Your task to perform on an android device: turn off data saver in the chrome app Image 0: 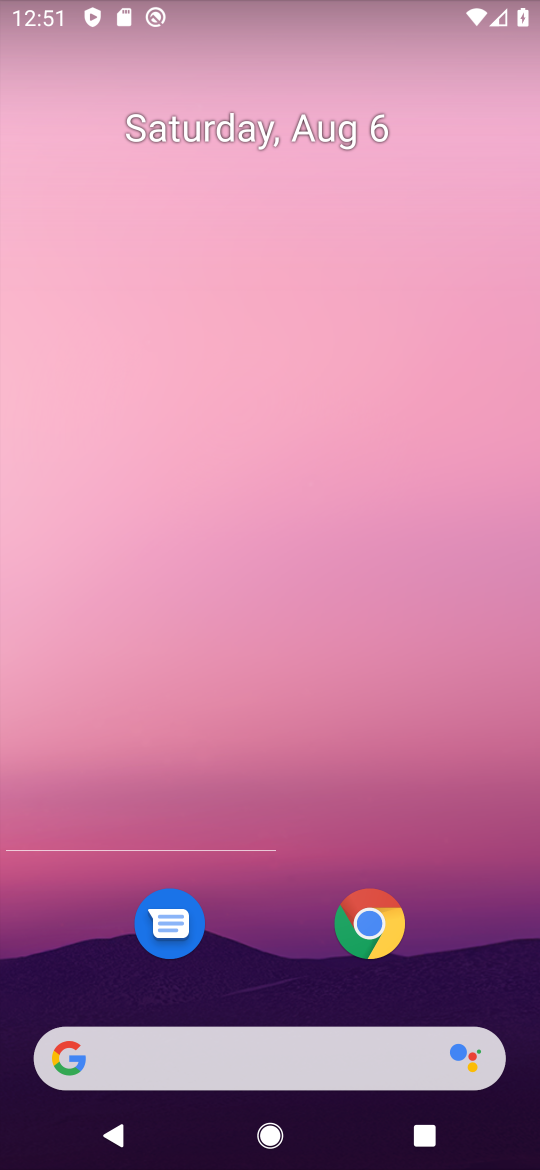
Step 0: click (298, 214)
Your task to perform on an android device: turn off data saver in the chrome app Image 1: 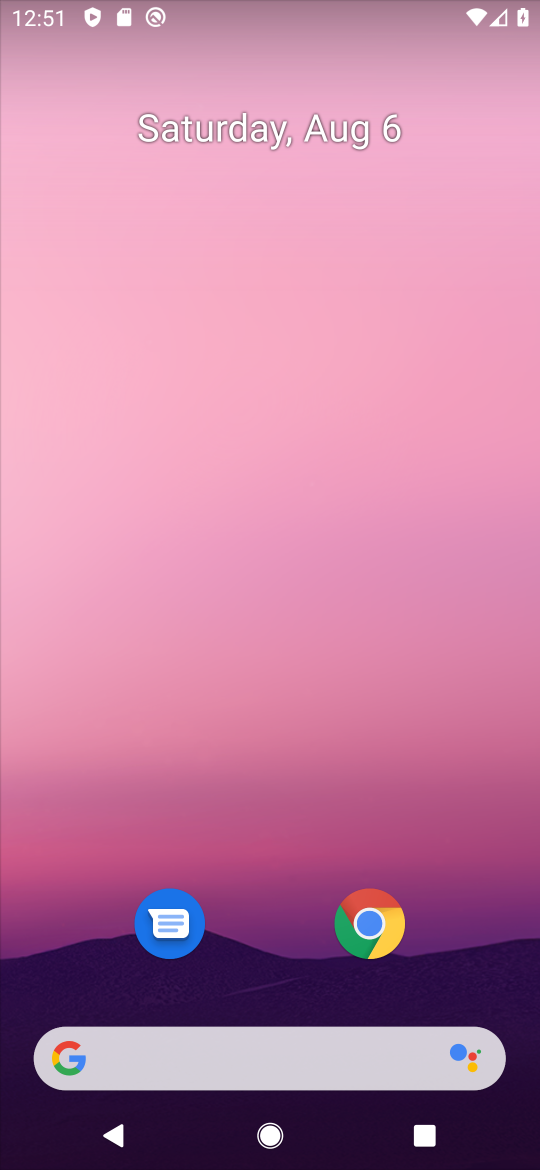
Step 1: click (367, 927)
Your task to perform on an android device: turn off data saver in the chrome app Image 2: 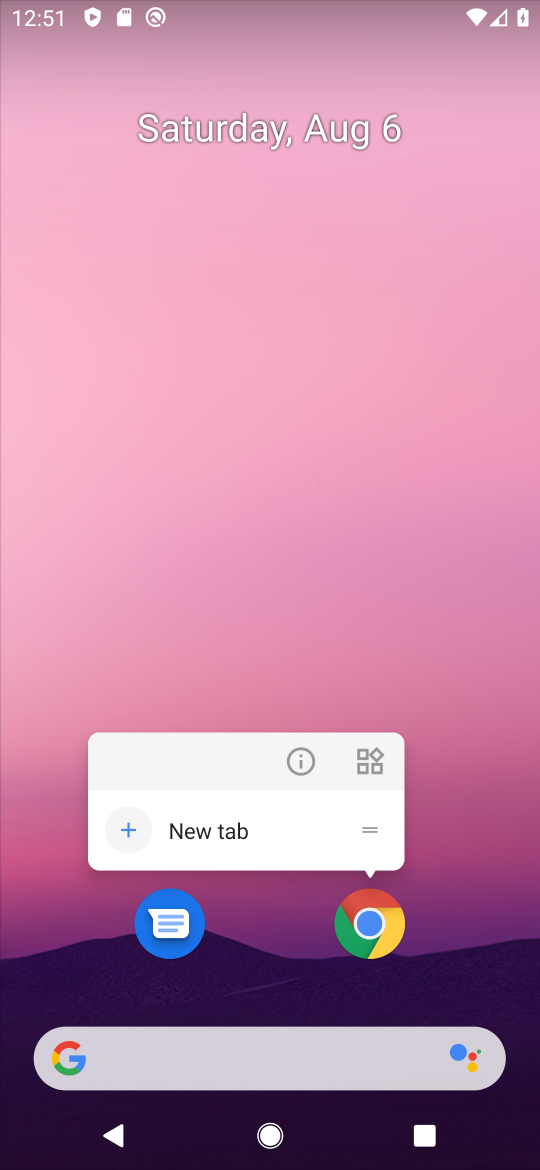
Step 2: click (294, 755)
Your task to perform on an android device: turn off data saver in the chrome app Image 3: 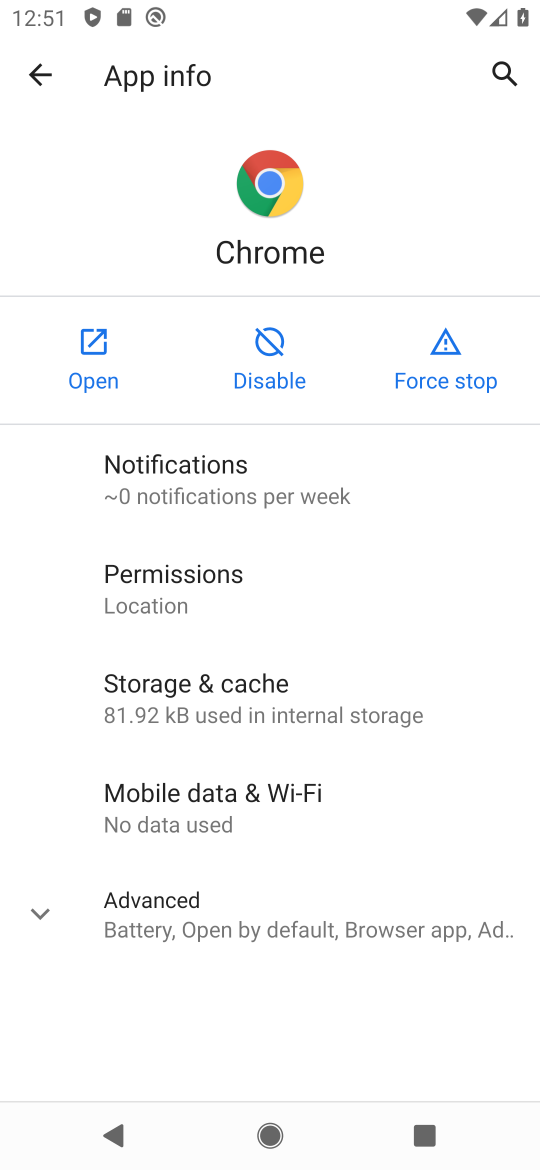
Step 3: click (119, 343)
Your task to perform on an android device: turn off data saver in the chrome app Image 4: 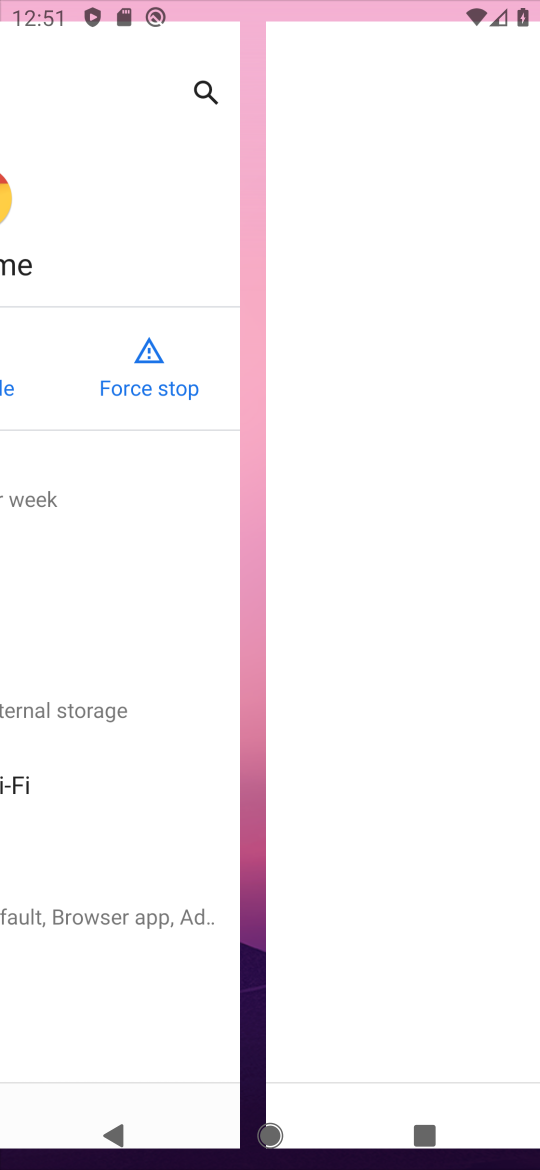
Step 4: click (90, 358)
Your task to perform on an android device: turn off data saver in the chrome app Image 5: 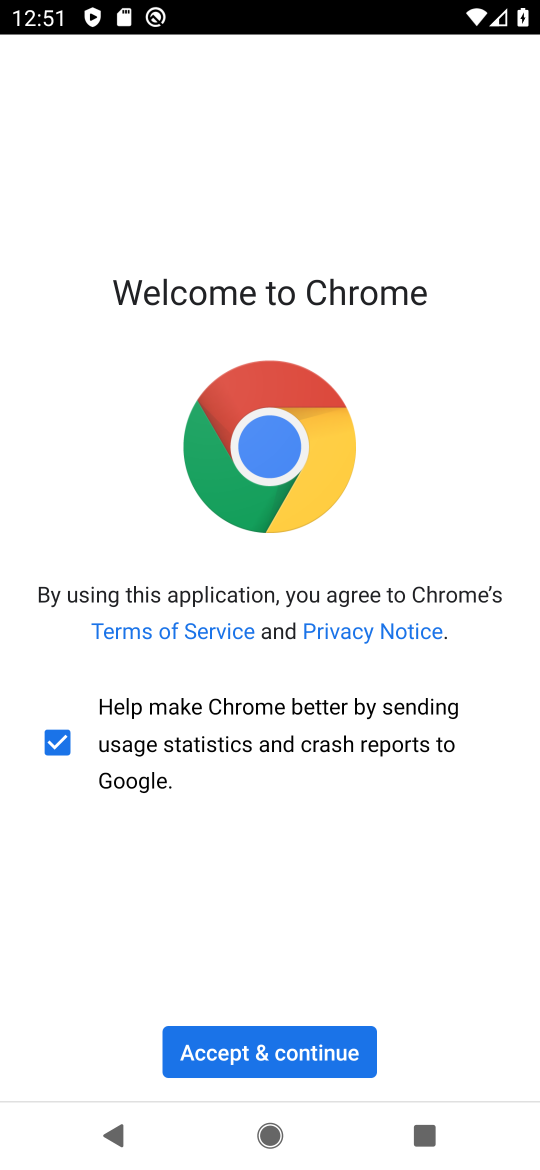
Step 5: drag from (278, 851) to (236, 317)
Your task to perform on an android device: turn off data saver in the chrome app Image 6: 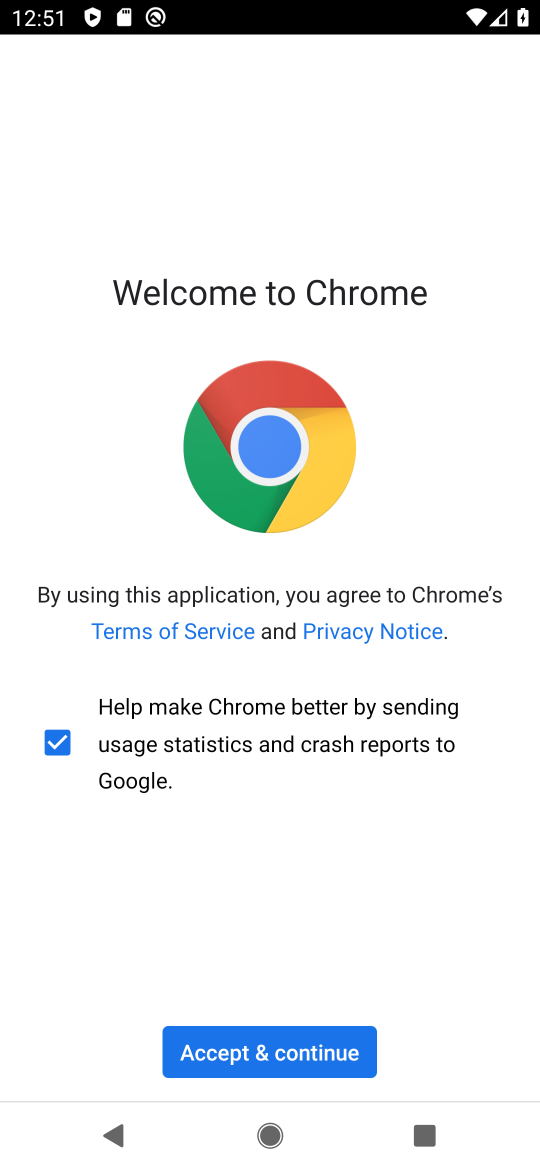
Step 6: drag from (304, 821) to (353, 330)
Your task to perform on an android device: turn off data saver in the chrome app Image 7: 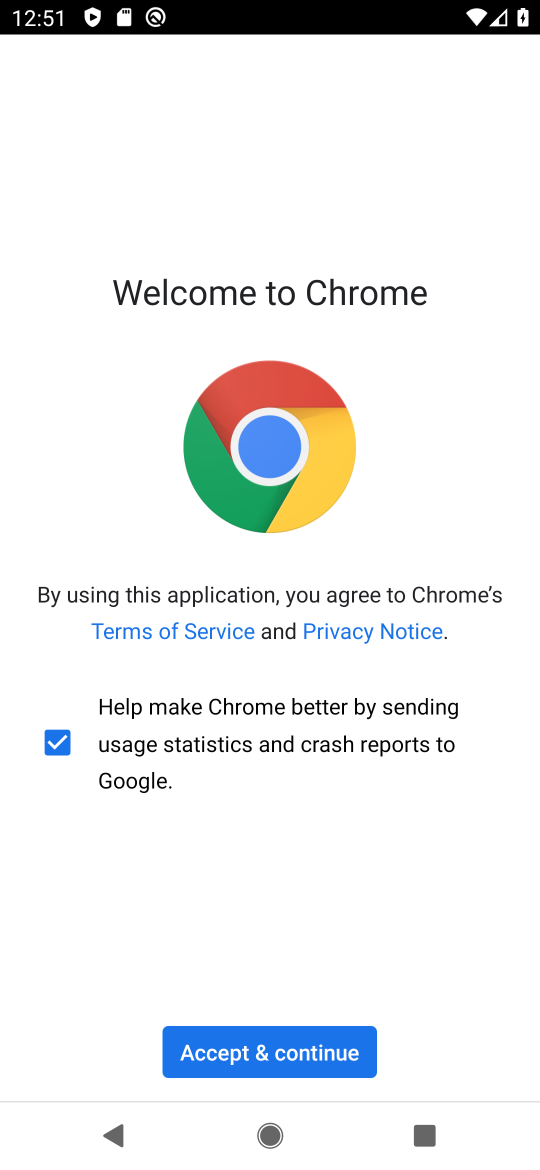
Step 7: click (313, 1046)
Your task to perform on an android device: turn off data saver in the chrome app Image 8: 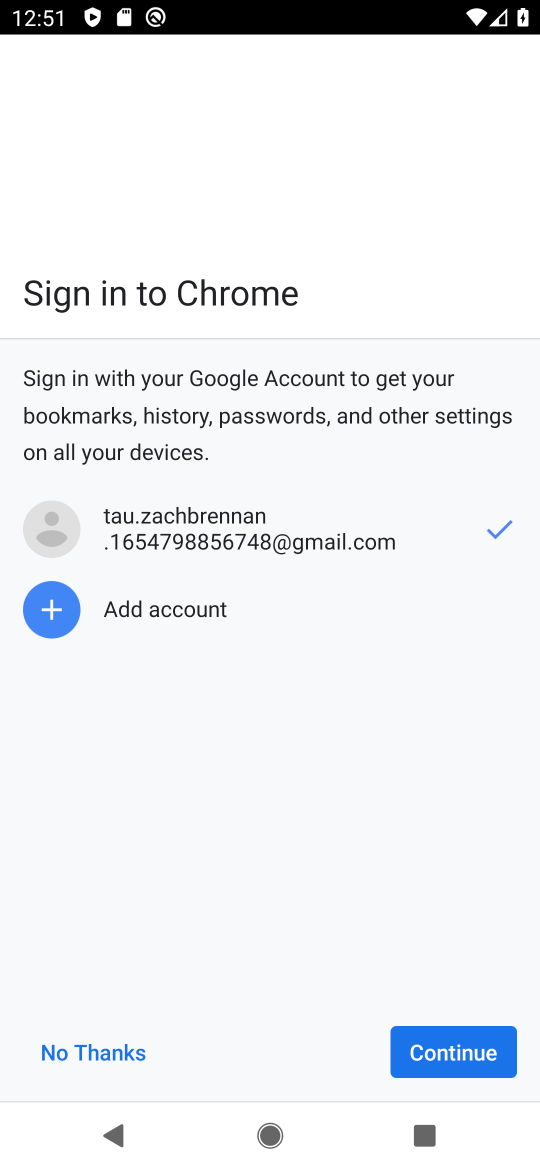
Step 8: drag from (246, 828) to (231, 266)
Your task to perform on an android device: turn off data saver in the chrome app Image 9: 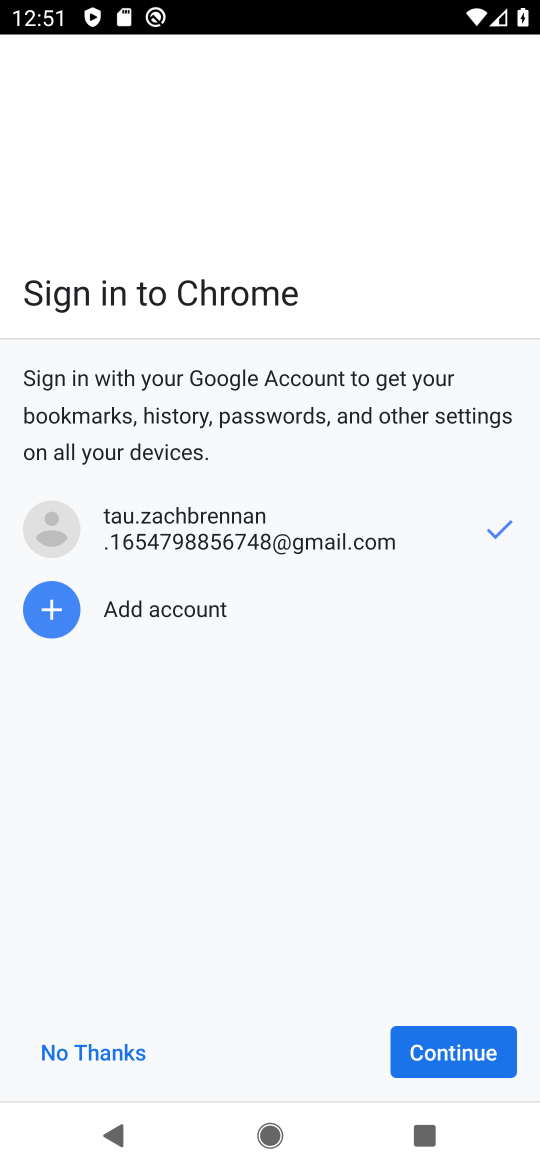
Step 9: click (436, 1066)
Your task to perform on an android device: turn off data saver in the chrome app Image 10: 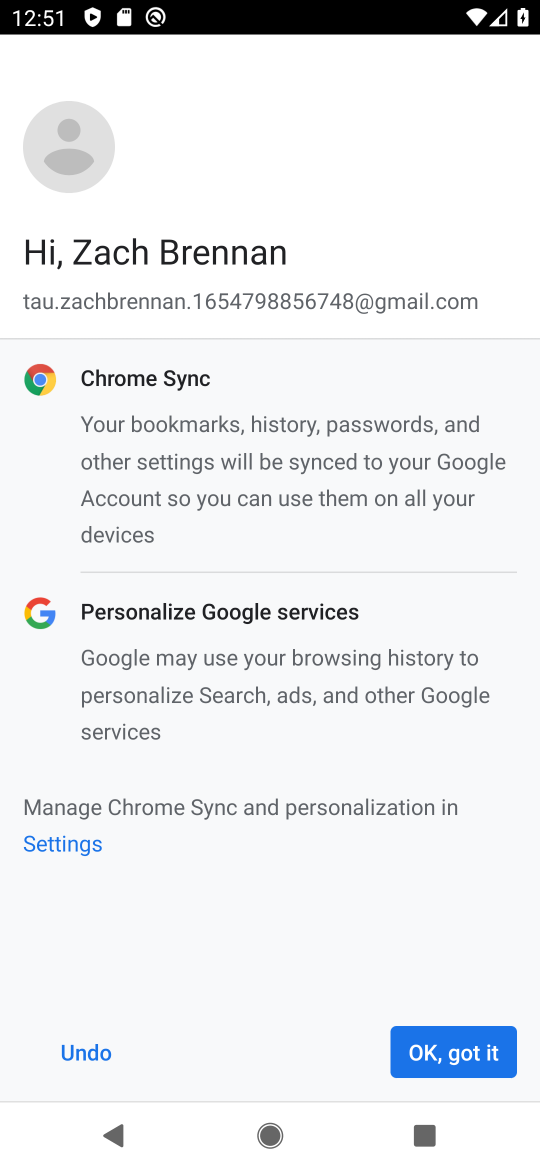
Step 10: click (438, 1068)
Your task to perform on an android device: turn off data saver in the chrome app Image 11: 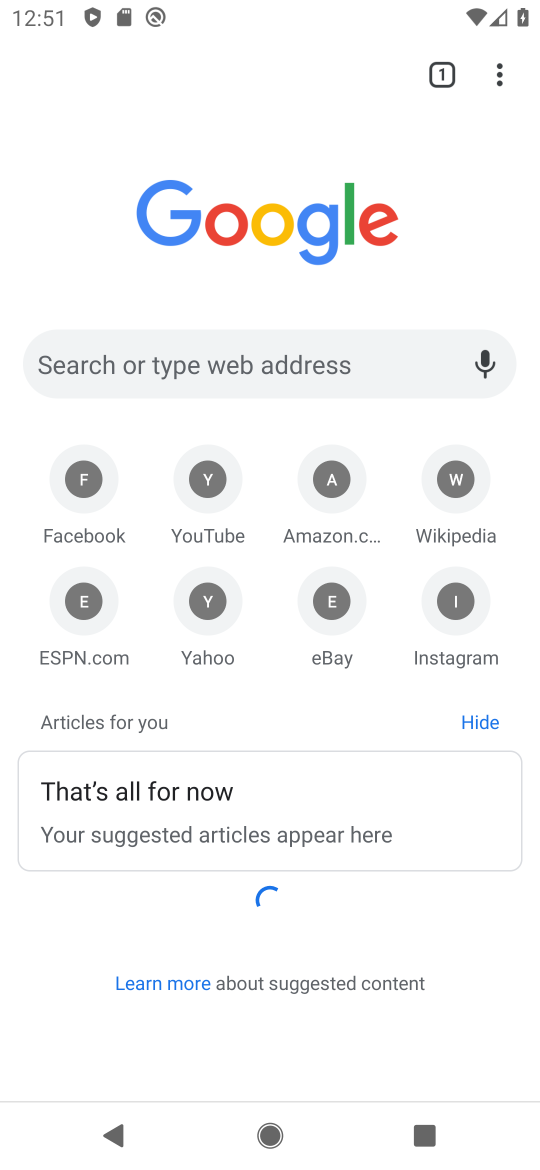
Step 11: drag from (267, 694) to (288, 159)
Your task to perform on an android device: turn off data saver in the chrome app Image 12: 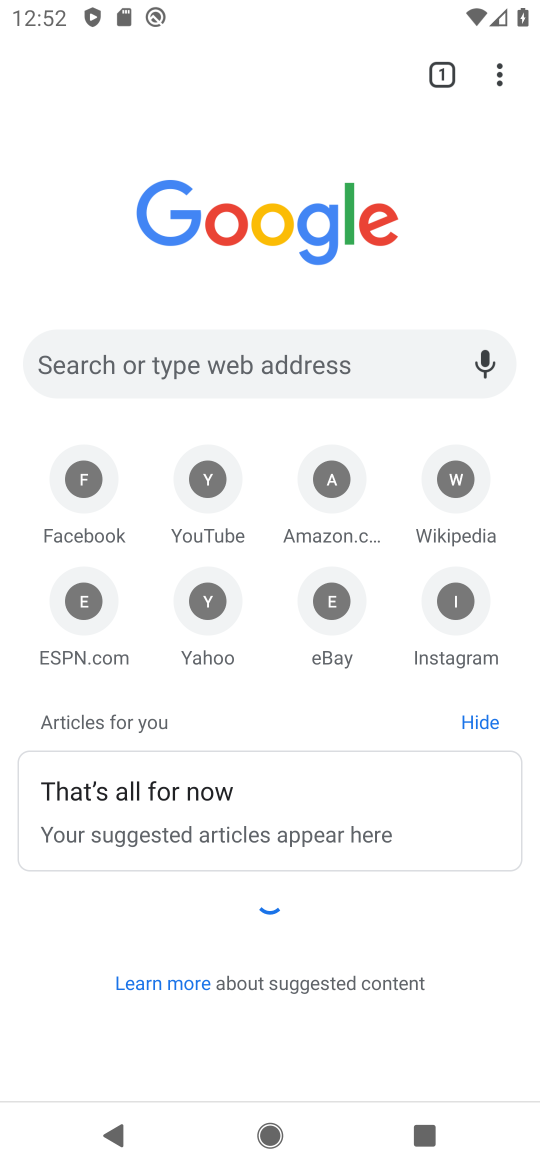
Step 12: click (269, 215)
Your task to perform on an android device: turn off data saver in the chrome app Image 13: 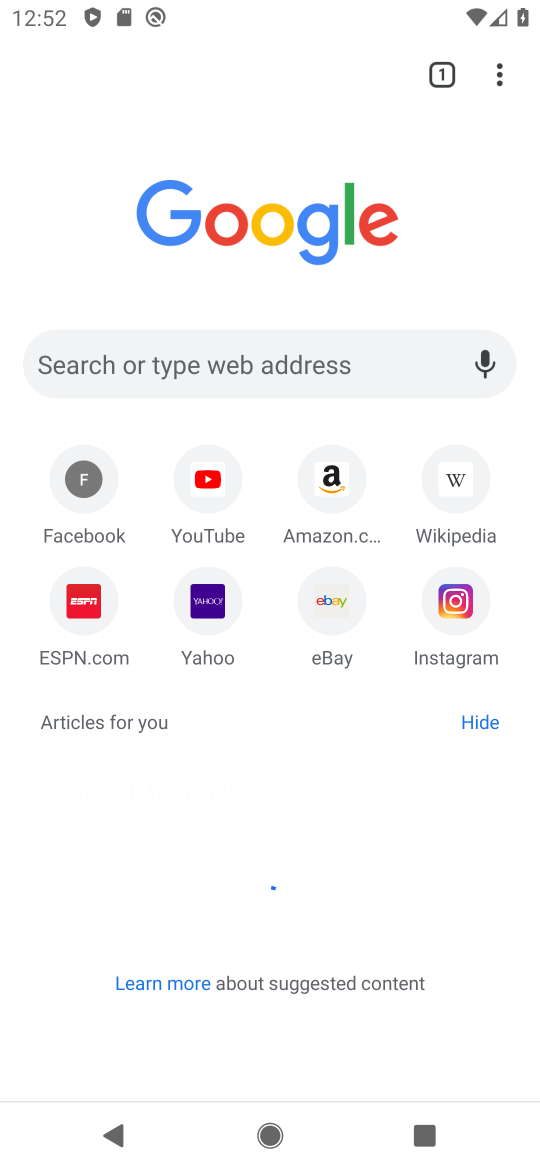
Step 13: drag from (500, 60) to (276, 619)
Your task to perform on an android device: turn off data saver in the chrome app Image 14: 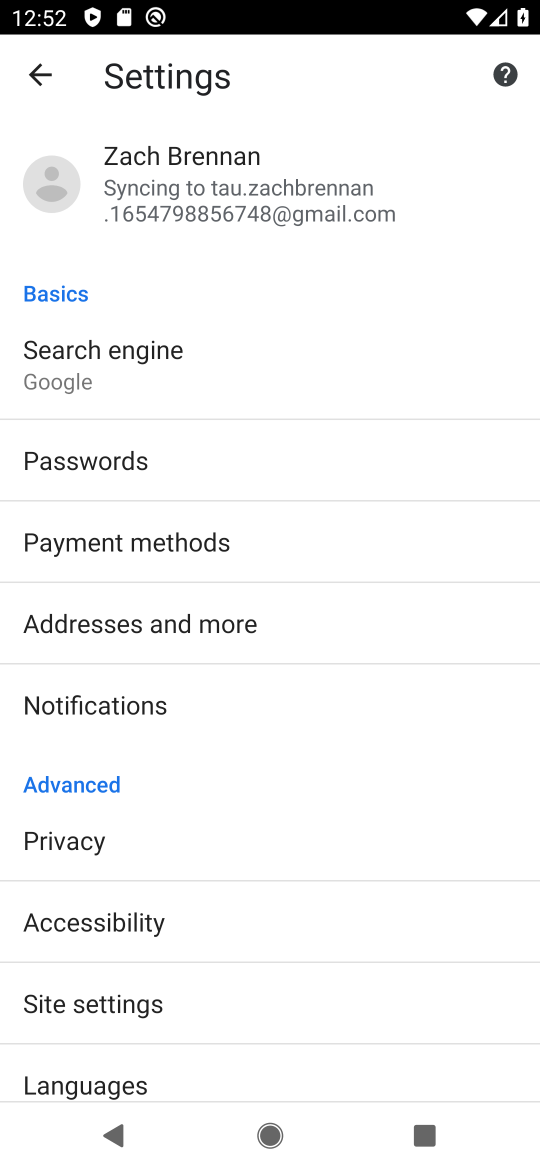
Step 14: drag from (275, 614) to (373, 86)
Your task to perform on an android device: turn off data saver in the chrome app Image 15: 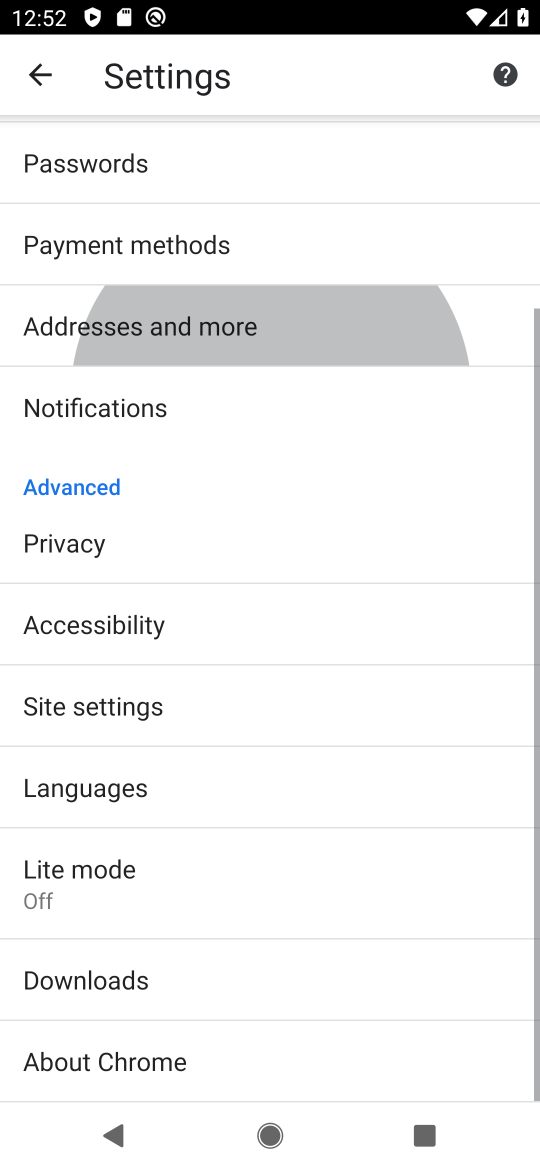
Step 15: drag from (261, 979) to (331, 248)
Your task to perform on an android device: turn off data saver in the chrome app Image 16: 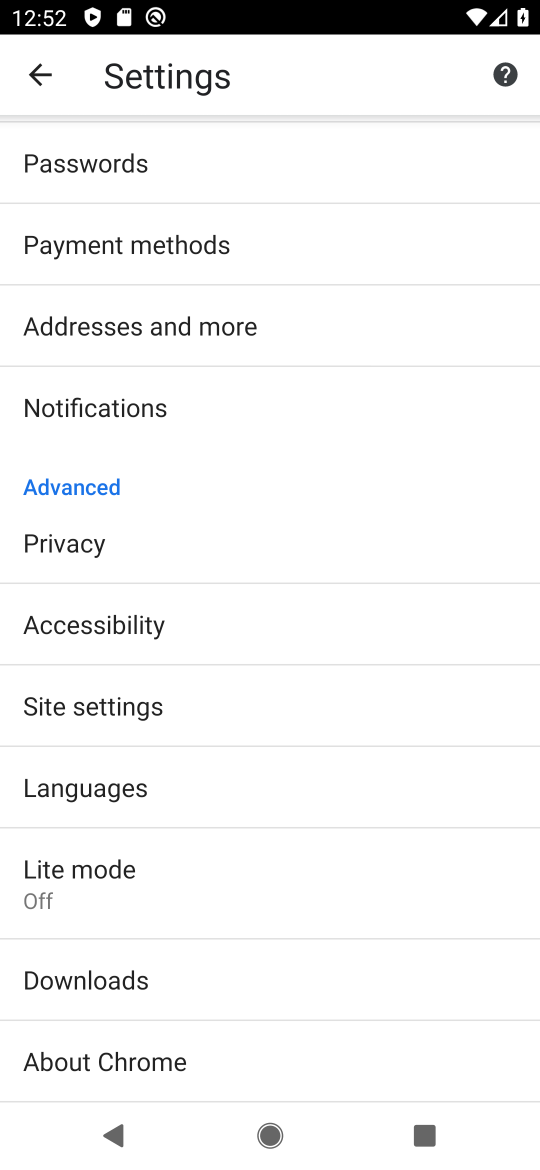
Step 16: click (166, 886)
Your task to perform on an android device: turn off data saver in the chrome app Image 17: 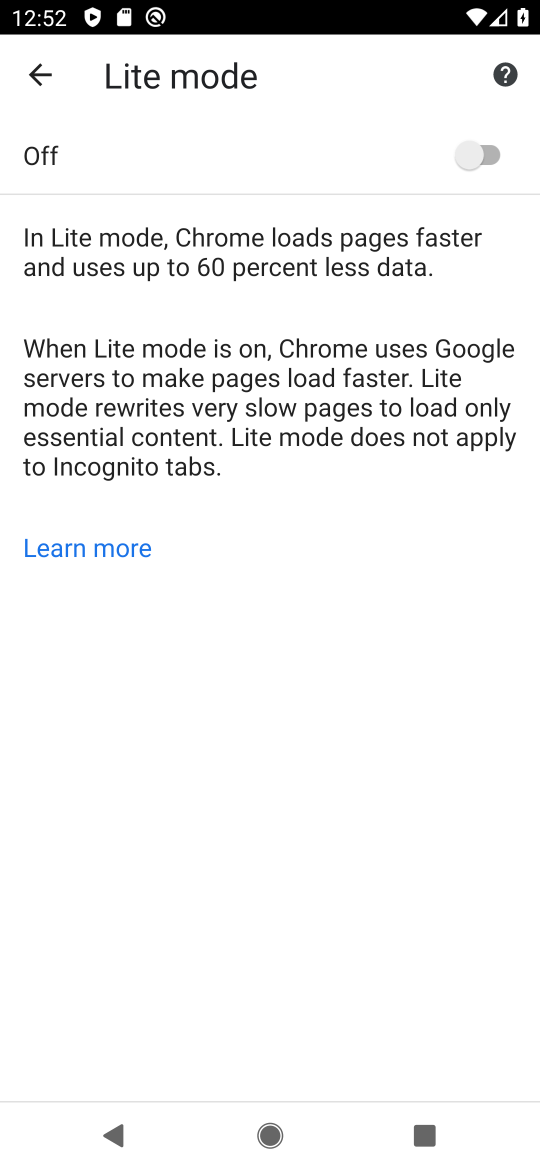
Step 17: task complete